Your task to perform on an android device: Open the calendar and show me this week's events Image 0: 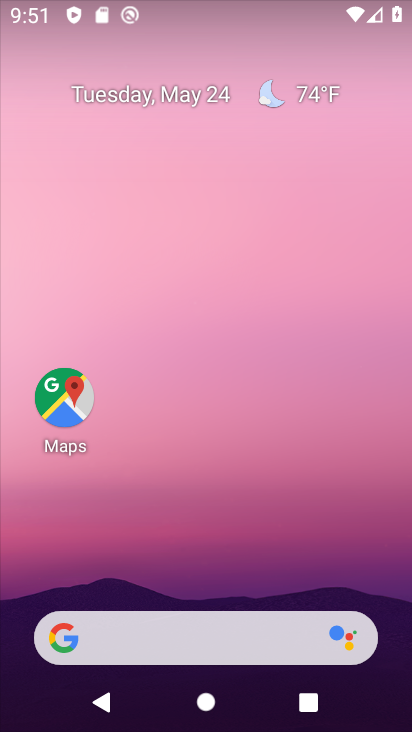
Step 0: drag from (231, 566) to (202, 197)
Your task to perform on an android device: Open the calendar and show me this week's events Image 1: 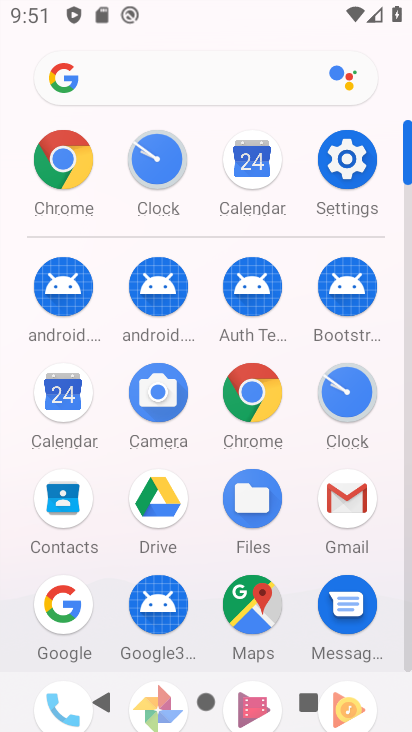
Step 1: click (53, 414)
Your task to perform on an android device: Open the calendar and show me this week's events Image 2: 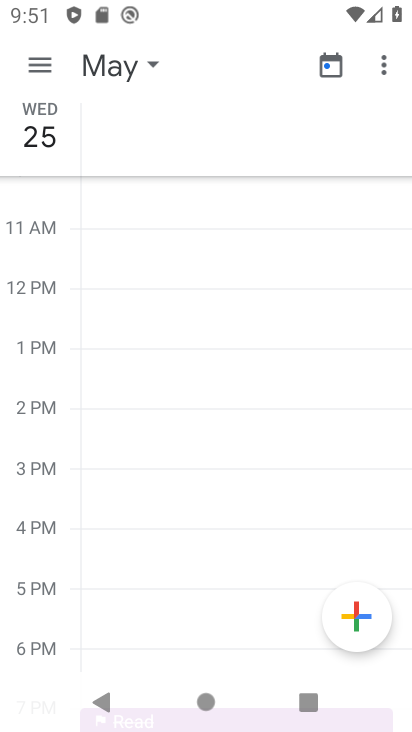
Step 2: click (35, 57)
Your task to perform on an android device: Open the calendar and show me this week's events Image 3: 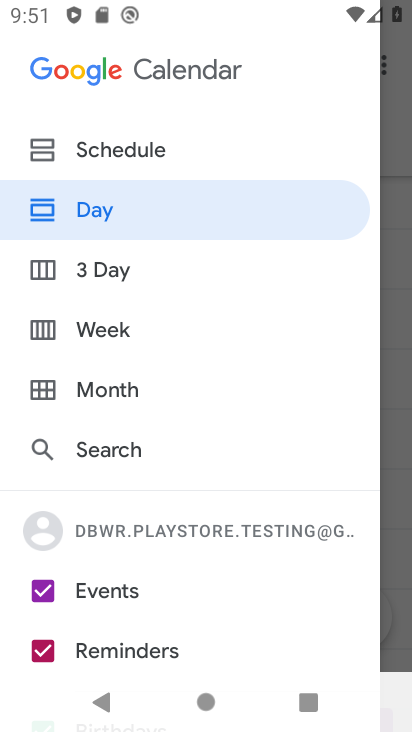
Step 3: click (93, 319)
Your task to perform on an android device: Open the calendar and show me this week's events Image 4: 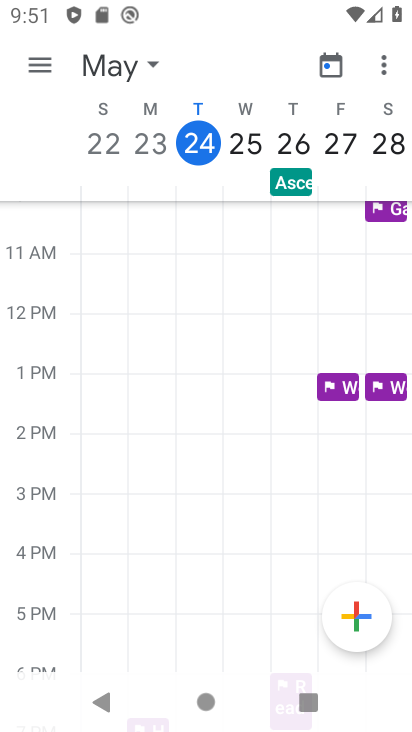
Step 4: click (294, 192)
Your task to perform on an android device: Open the calendar and show me this week's events Image 5: 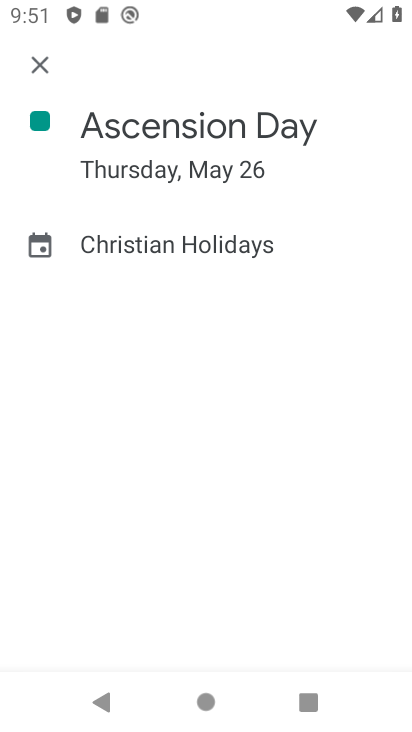
Step 5: task complete